Your task to perform on an android device: Open wifi settings Image 0: 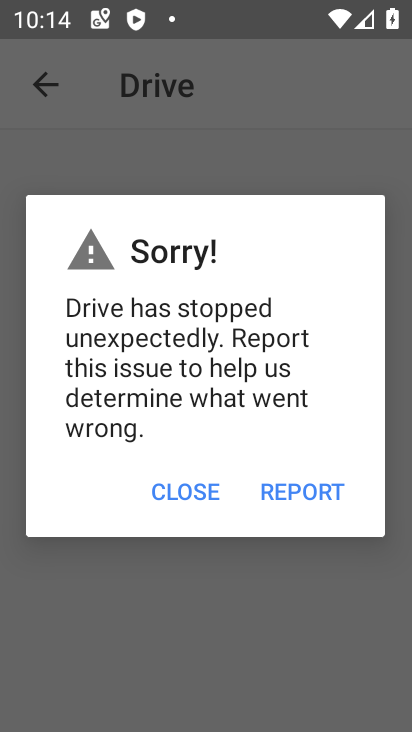
Step 0: press home button
Your task to perform on an android device: Open wifi settings Image 1: 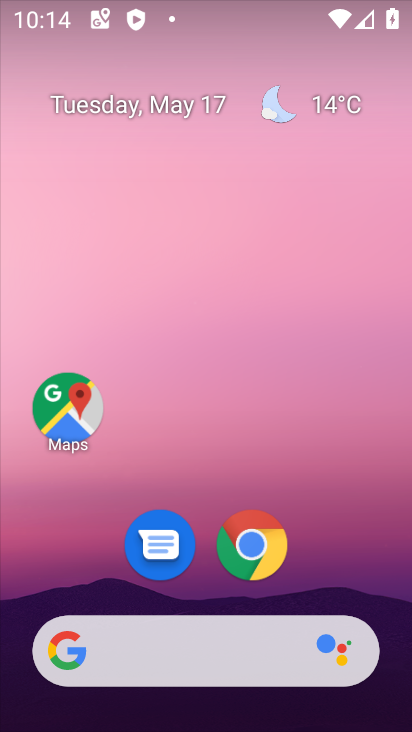
Step 1: drag from (269, 685) to (316, 0)
Your task to perform on an android device: Open wifi settings Image 2: 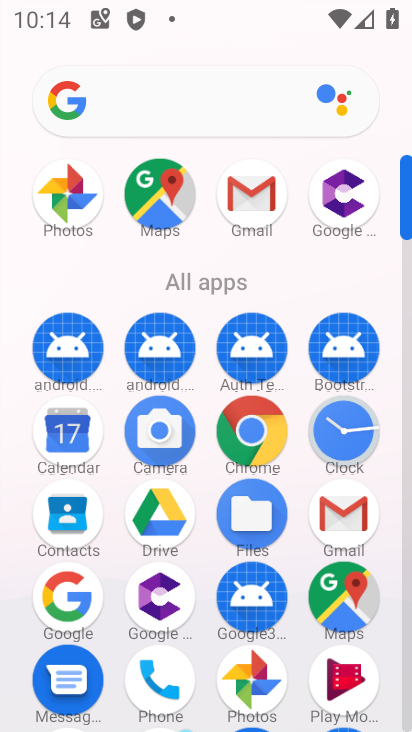
Step 2: drag from (222, 599) to (226, 243)
Your task to perform on an android device: Open wifi settings Image 3: 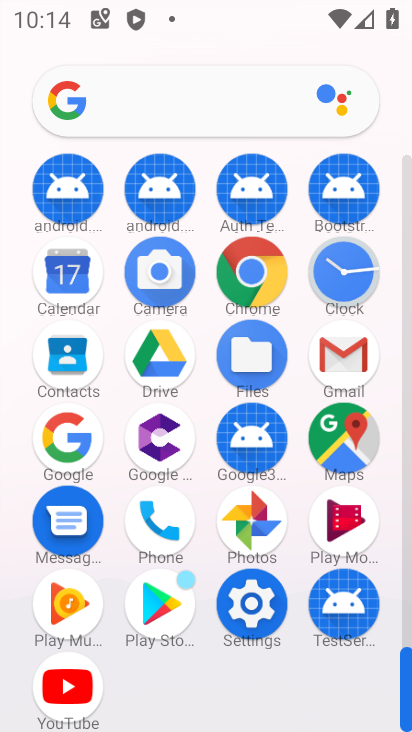
Step 3: click (265, 599)
Your task to perform on an android device: Open wifi settings Image 4: 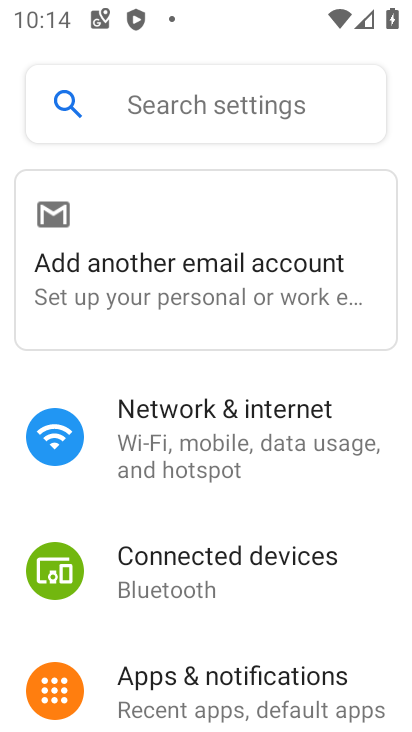
Step 4: click (233, 453)
Your task to perform on an android device: Open wifi settings Image 5: 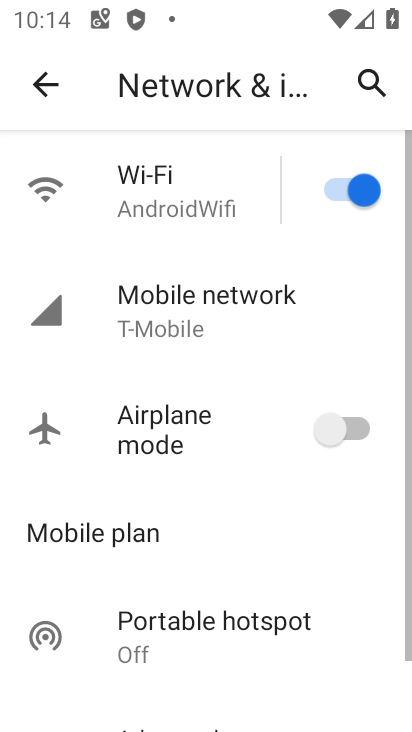
Step 5: click (213, 206)
Your task to perform on an android device: Open wifi settings Image 6: 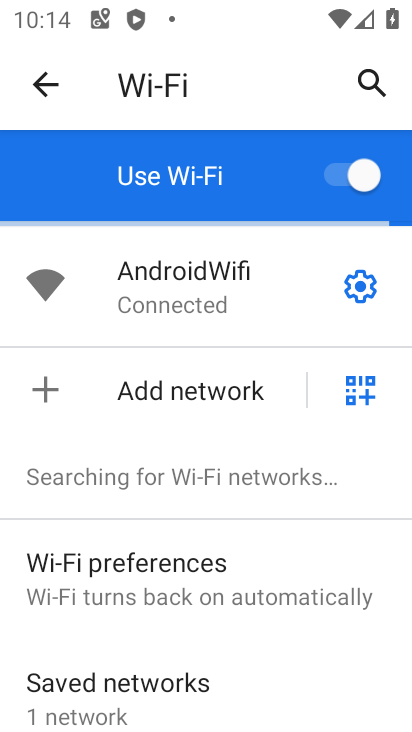
Step 6: task complete